Your task to perform on an android device: Open Chrome and go to settings Image 0: 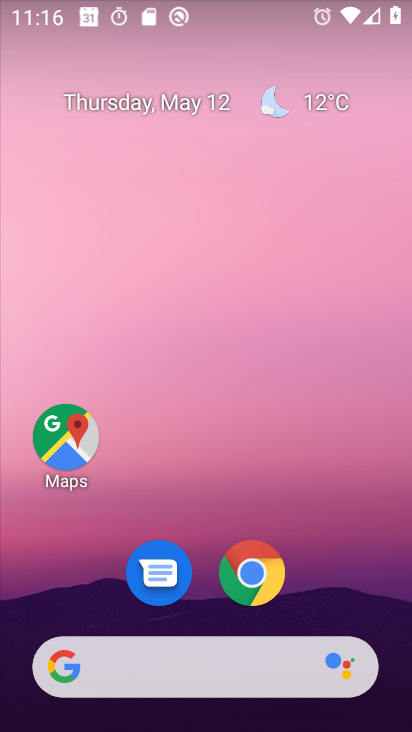
Step 0: click (260, 577)
Your task to perform on an android device: Open Chrome and go to settings Image 1: 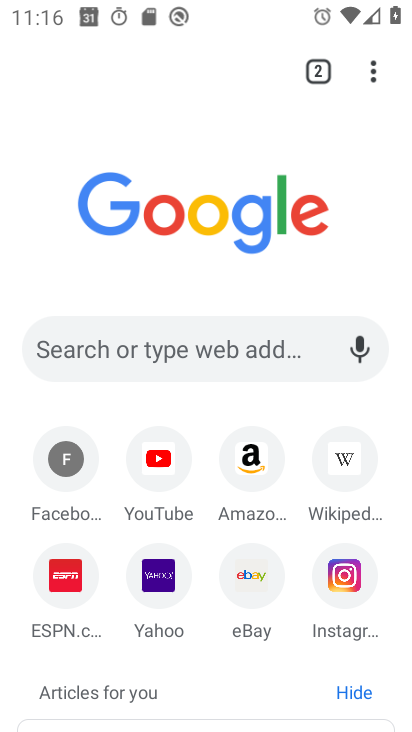
Step 1: click (374, 72)
Your task to perform on an android device: Open Chrome and go to settings Image 2: 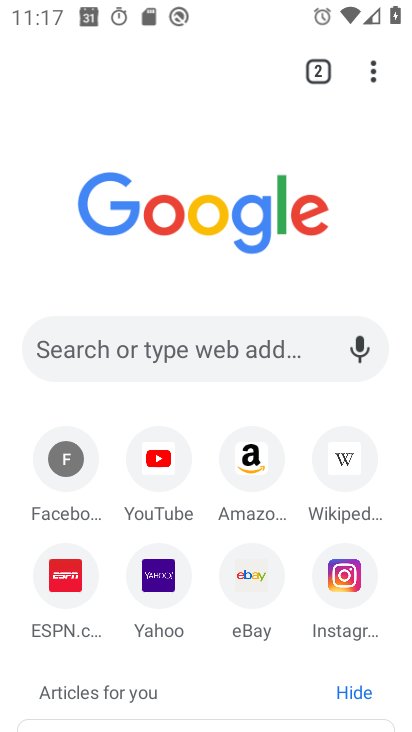
Step 2: click (374, 72)
Your task to perform on an android device: Open Chrome and go to settings Image 3: 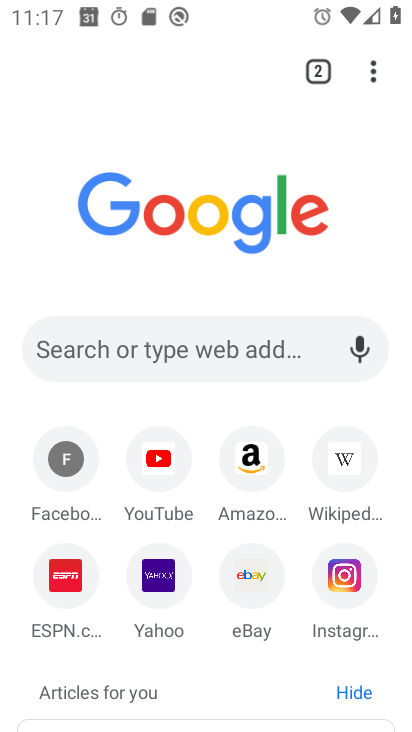
Step 3: click (375, 74)
Your task to perform on an android device: Open Chrome and go to settings Image 4: 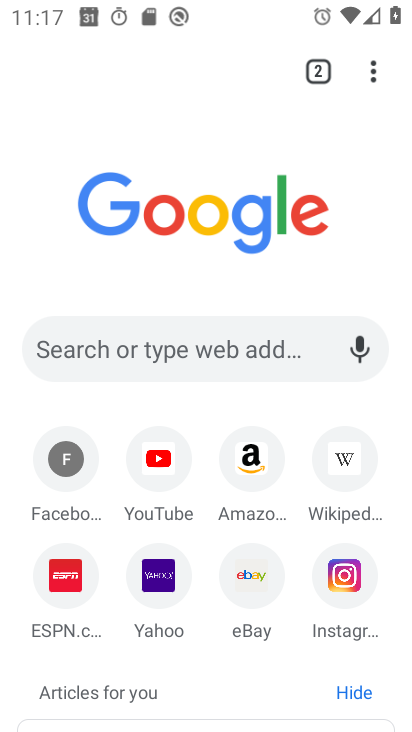
Step 4: click (373, 69)
Your task to perform on an android device: Open Chrome and go to settings Image 5: 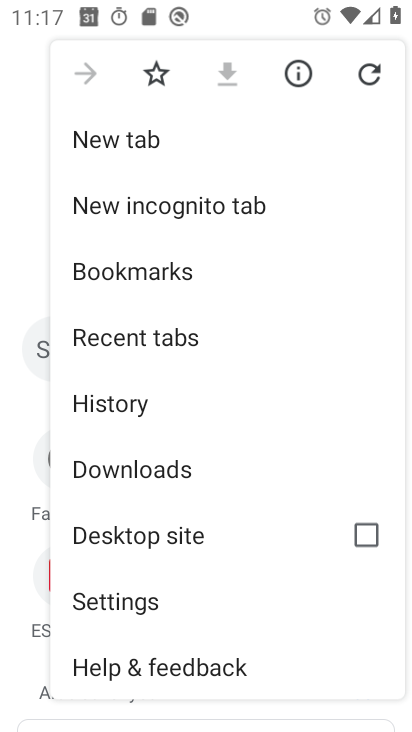
Step 5: click (139, 605)
Your task to perform on an android device: Open Chrome and go to settings Image 6: 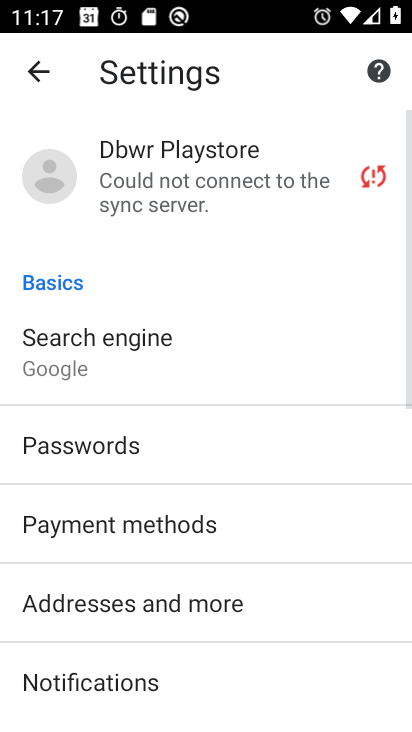
Step 6: task complete